Your task to perform on an android device: Clear the shopping cart on target.com. Search for usb-a to usb-b on target.com, select the first entry, and add it to the cart. Image 0: 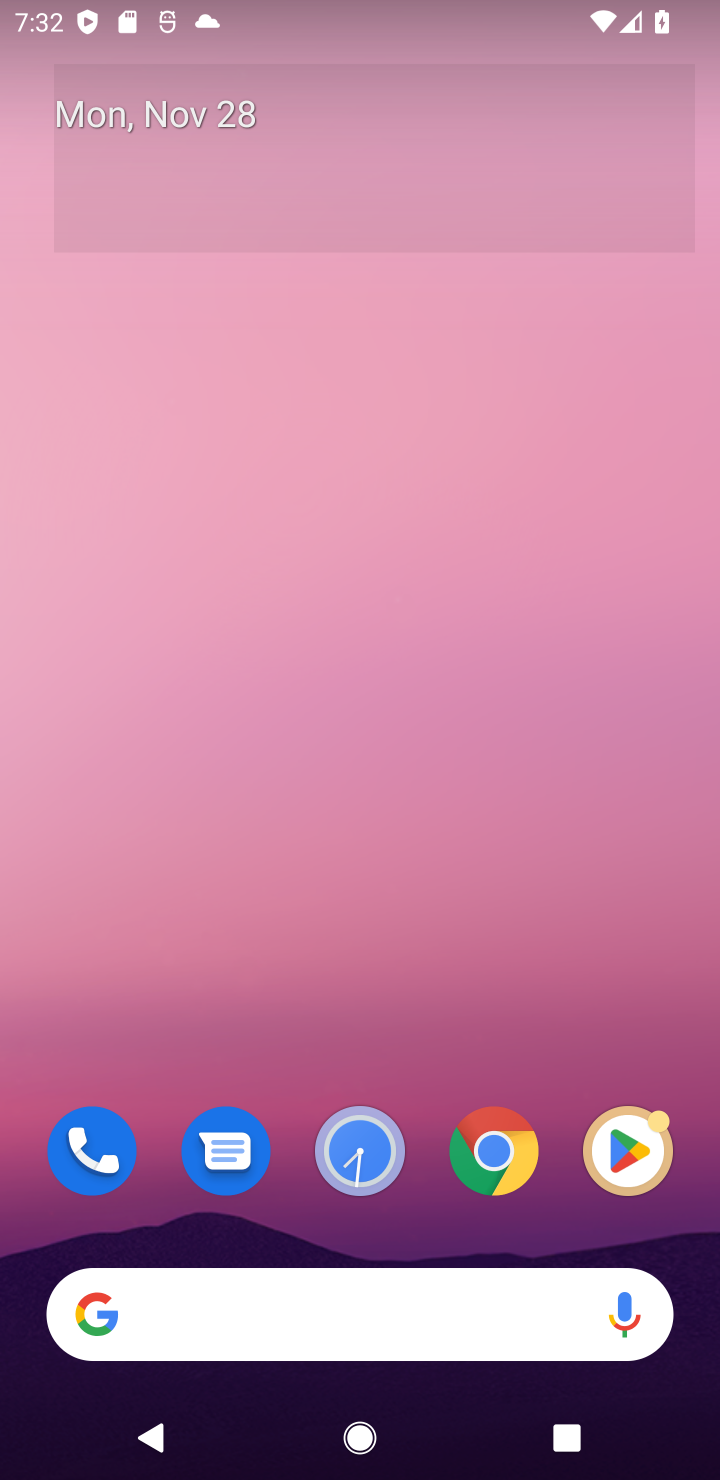
Step 0: click (351, 1301)
Your task to perform on an android device: Clear the shopping cart on target.com. Search for usb-a to usb-b on target.com, select the first entry, and add it to the cart. Image 1: 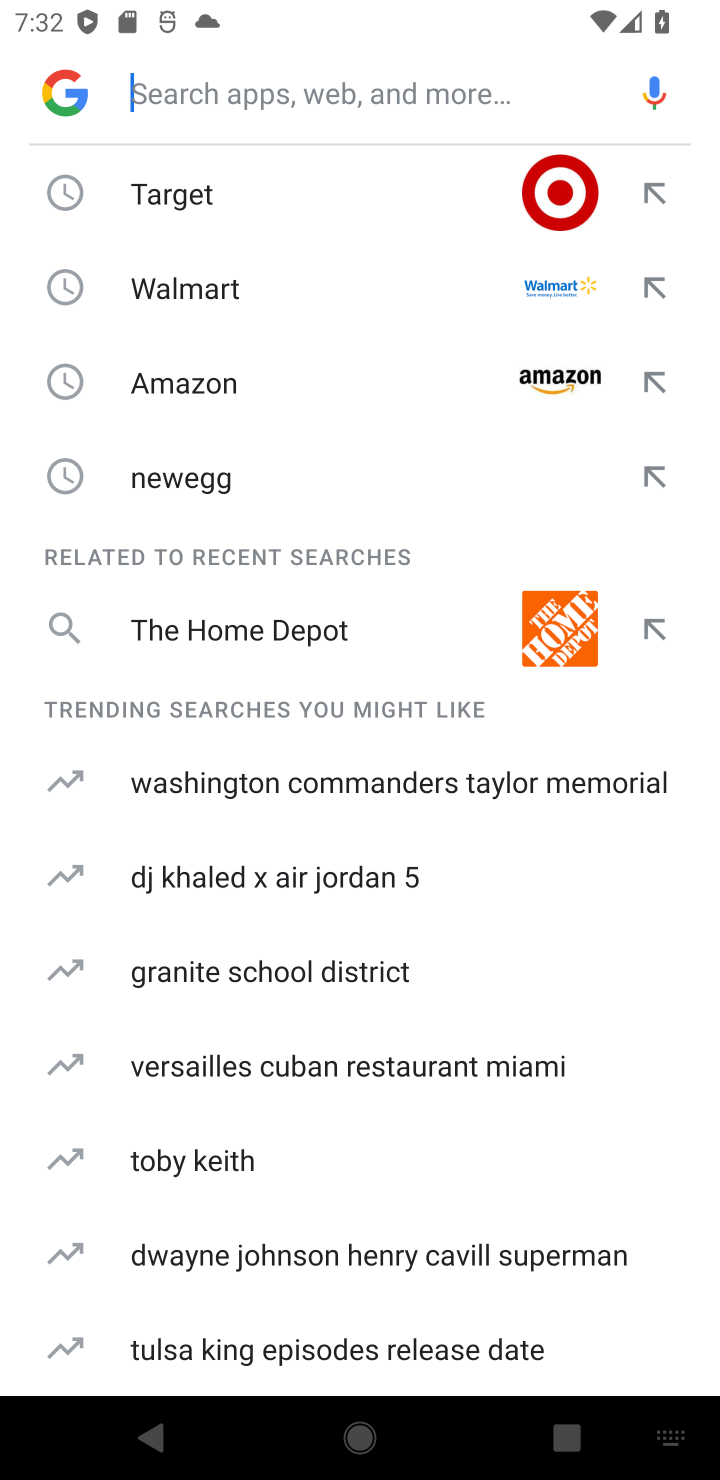
Step 1: click (180, 212)
Your task to perform on an android device: Clear the shopping cart on target.com. Search for usb-a to usb-b on target.com, select the first entry, and add it to the cart. Image 2: 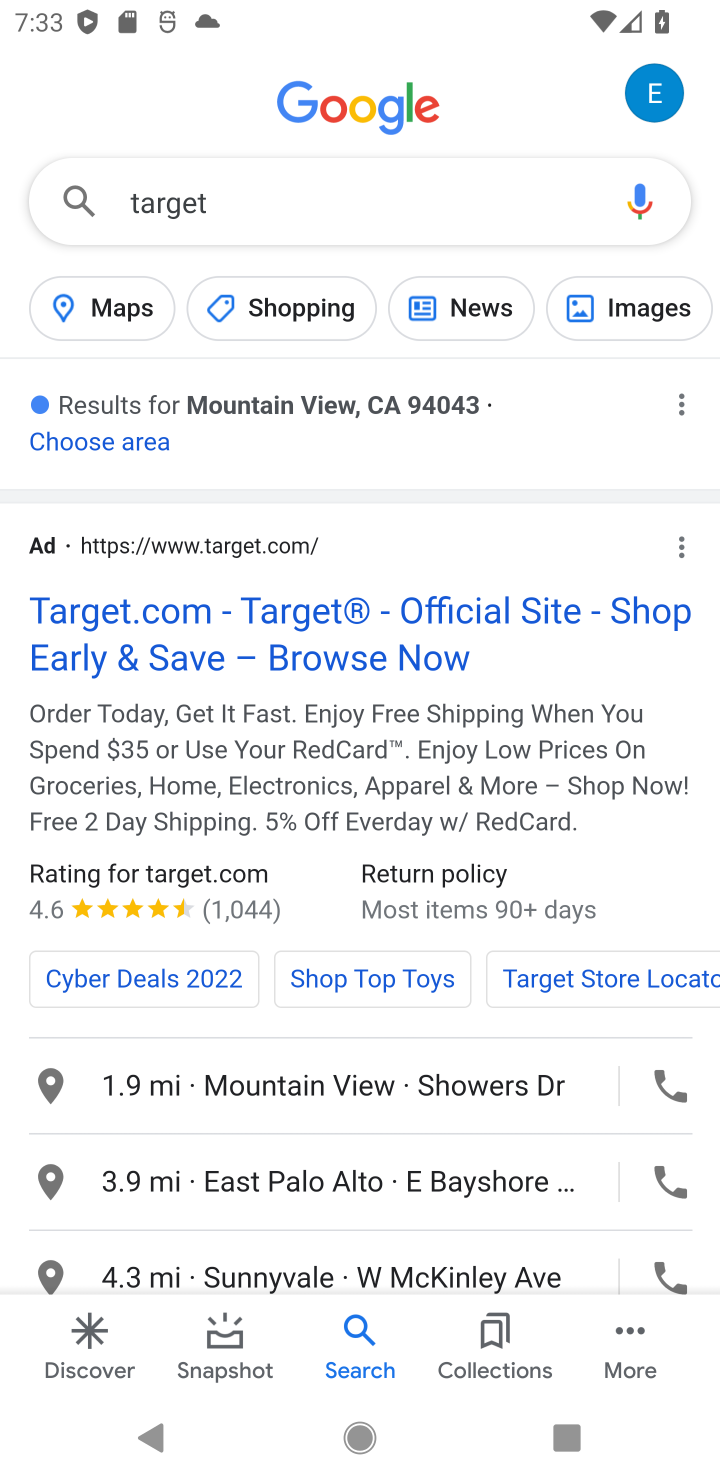
Step 2: click (230, 650)
Your task to perform on an android device: Clear the shopping cart on target.com. Search for usb-a to usb-b on target.com, select the first entry, and add it to the cart. Image 3: 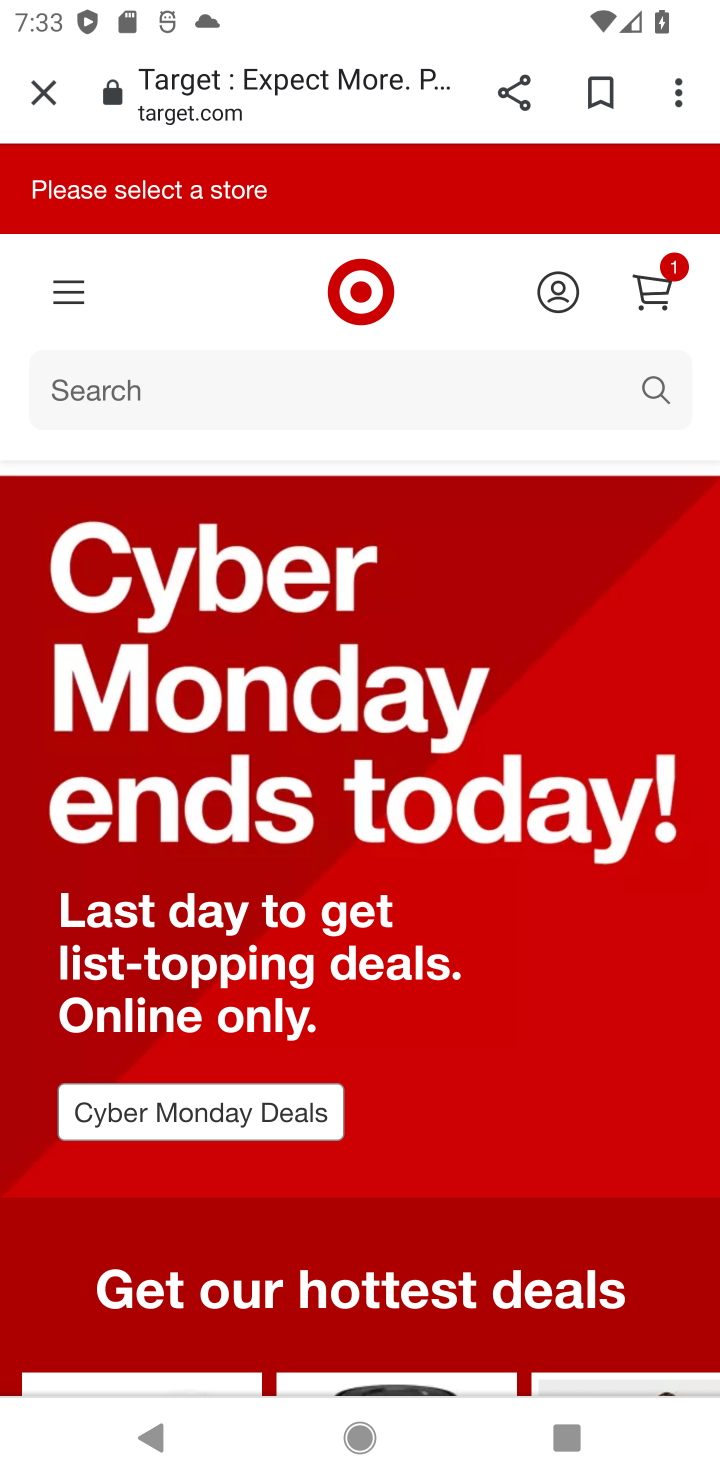
Step 3: click (190, 381)
Your task to perform on an android device: Clear the shopping cart on target.com. Search for usb-a to usb-b on target.com, select the first entry, and add it to the cart. Image 4: 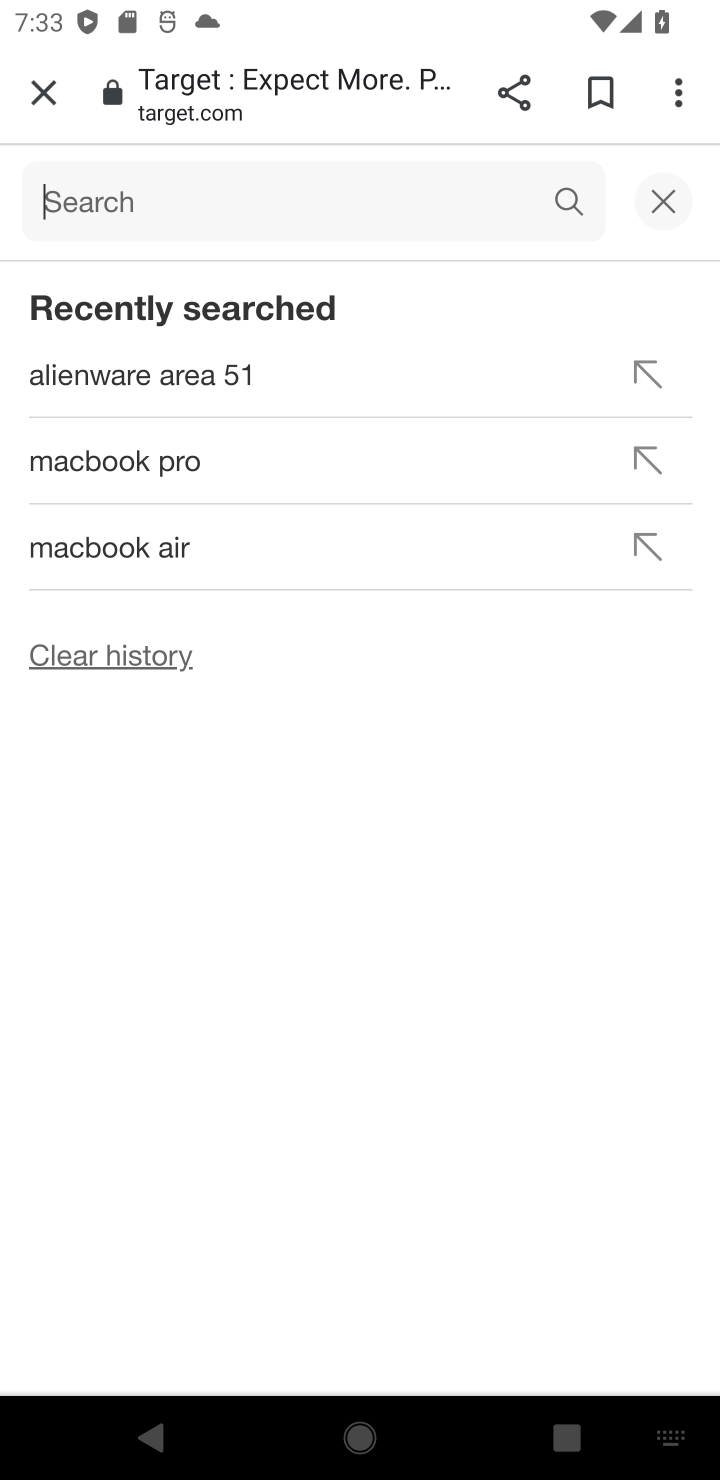
Step 4: type "target"
Your task to perform on an android device: Clear the shopping cart on target.com. Search for usb-a to usb-b on target.com, select the first entry, and add it to the cart. Image 5: 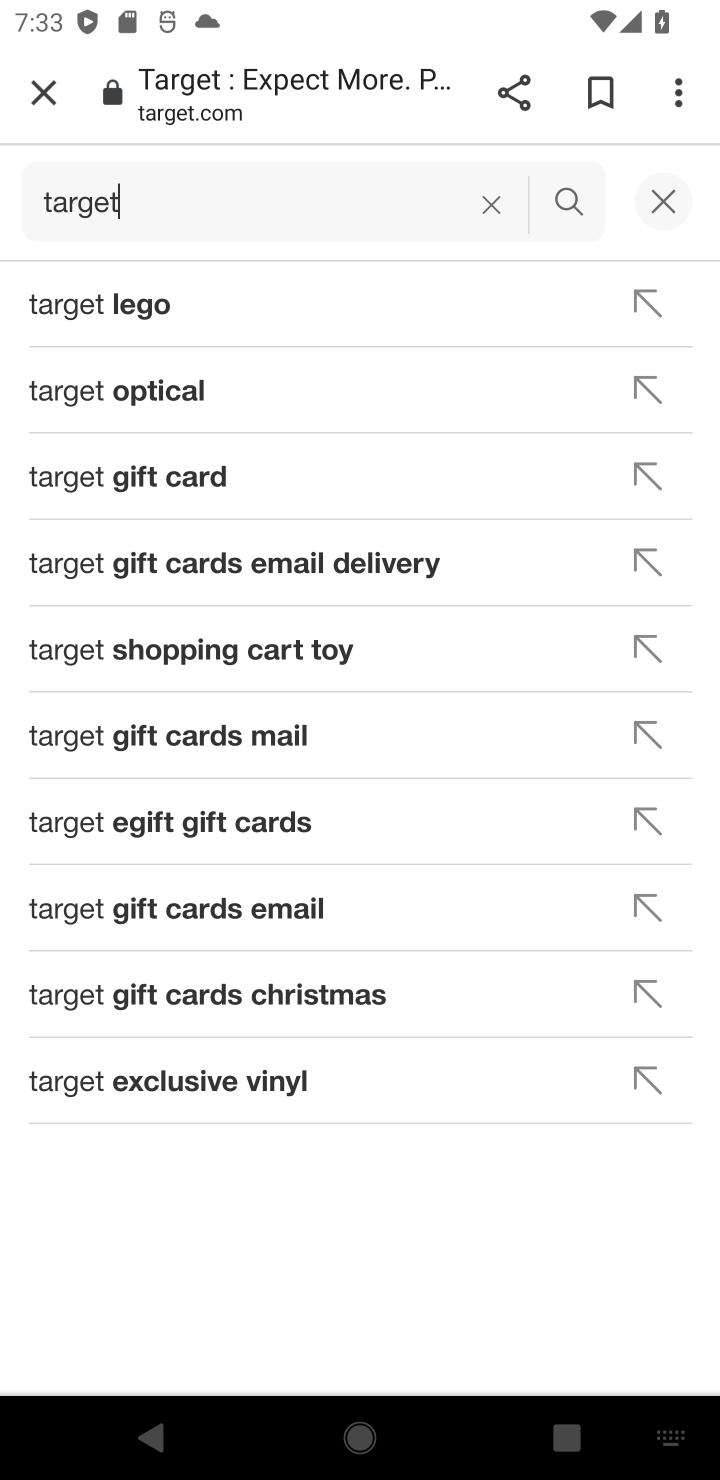
Step 5: task complete